Your task to perform on an android device: refresh tabs in the chrome app Image 0: 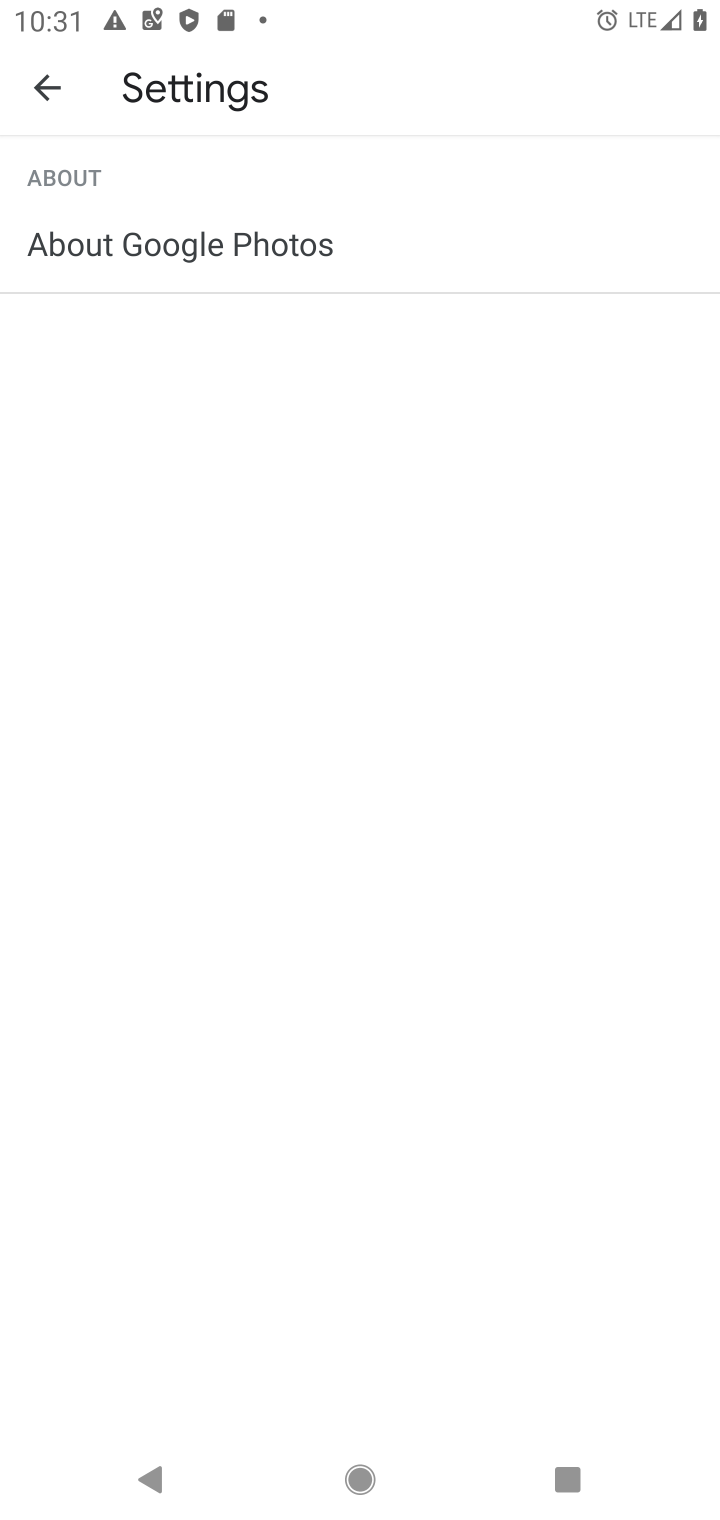
Step 0: press home button
Your task to perform on an android device: refresh tabs in the chrome app Image 1: 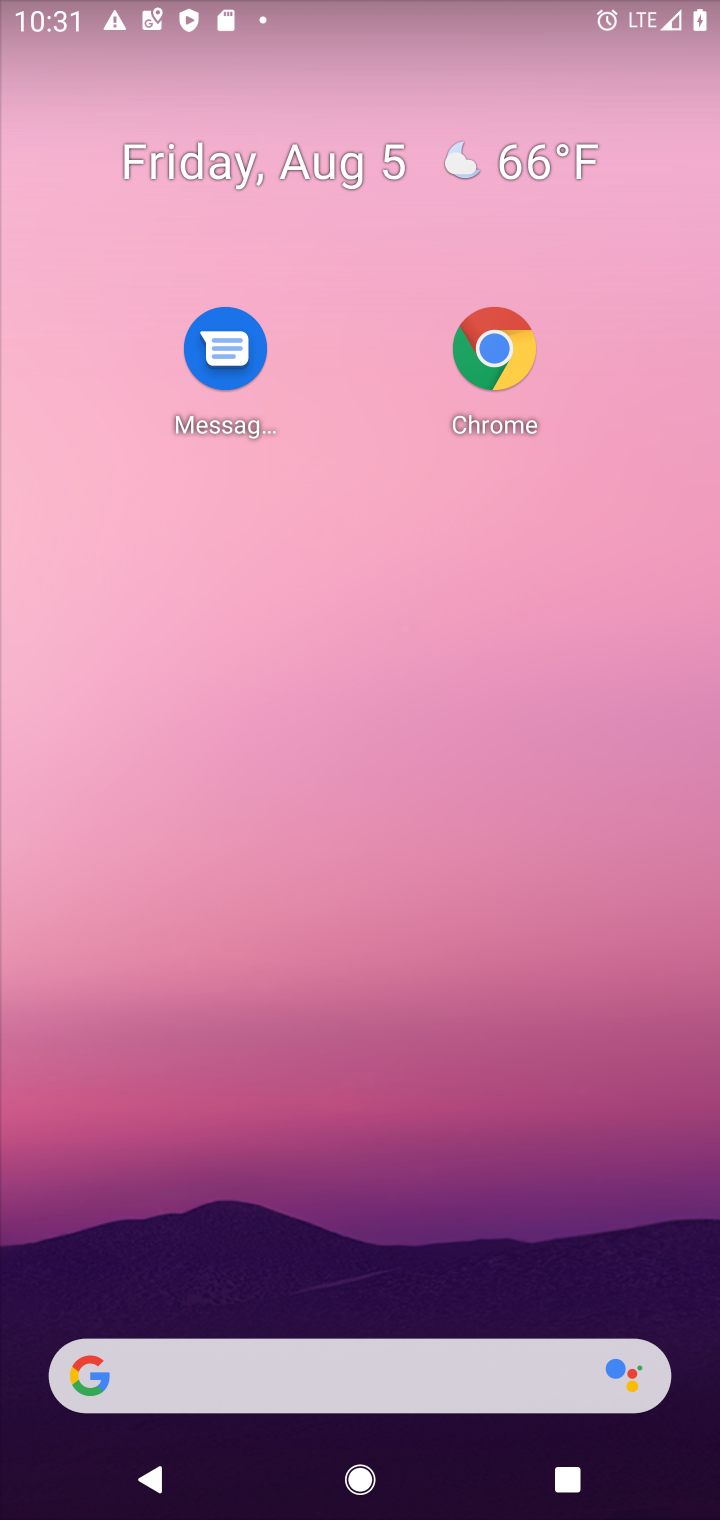
Step 1: drag from (379, 1163) to (259, 442)
Your task to perform on an android device: refresh tabs in the chrome app Image 2: 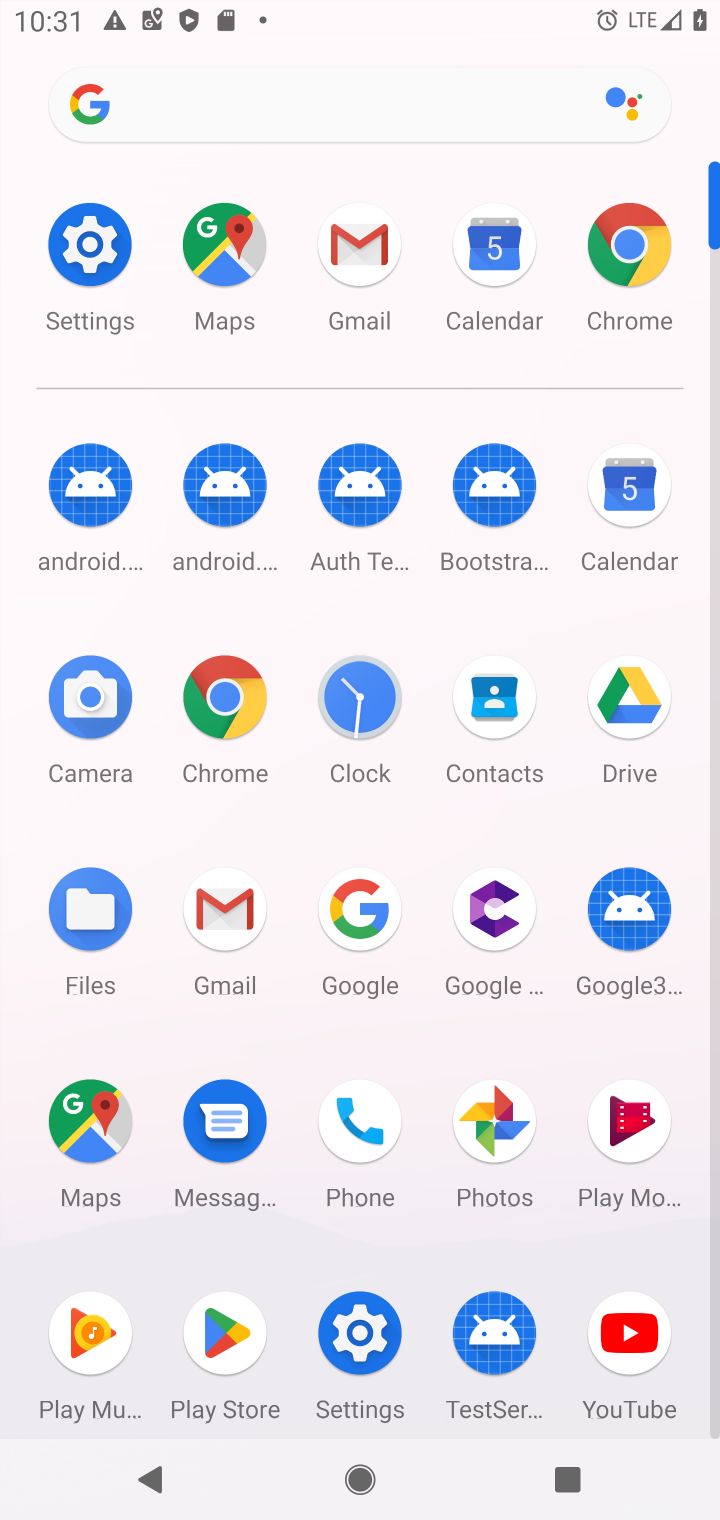
Step 2: click (599, 243)
Your task to perform on an android device: refresh tabs in the chrome app Image 3: 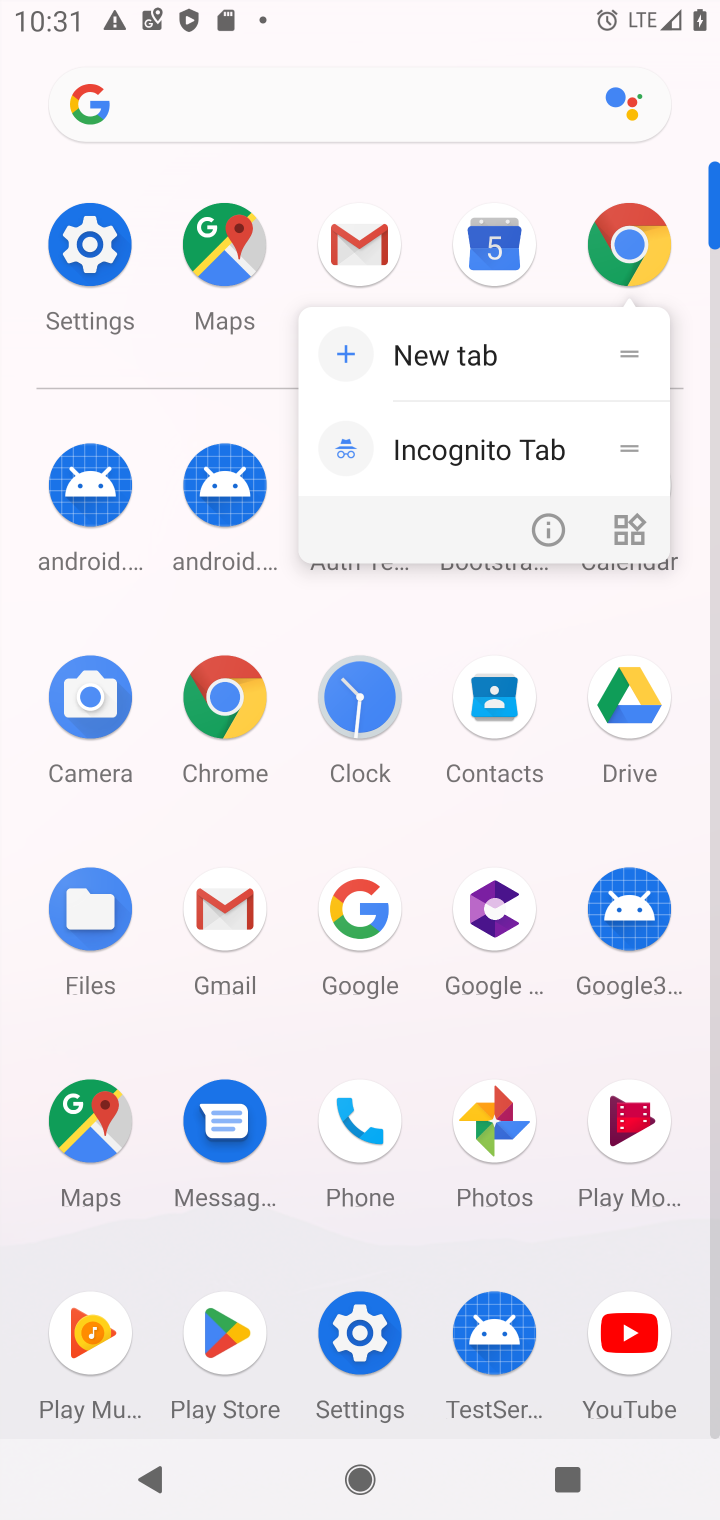
Step 3: click (641, 238)
Your task to perform on an android device: refresh tabs in the chrome app Image 4: 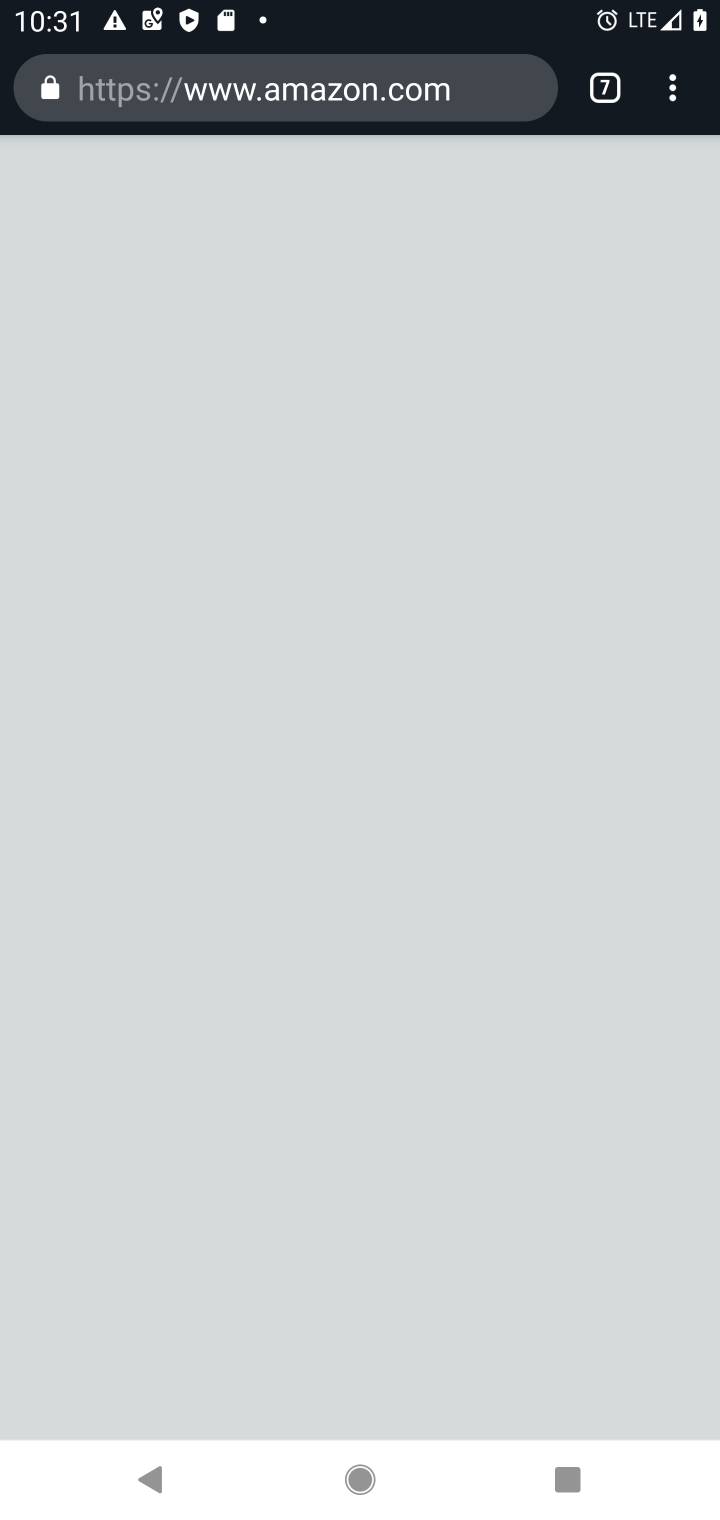
Step 4: click (671, 91)
Your task to perform on an android device: refresh tabs in the chrome app Image 5: 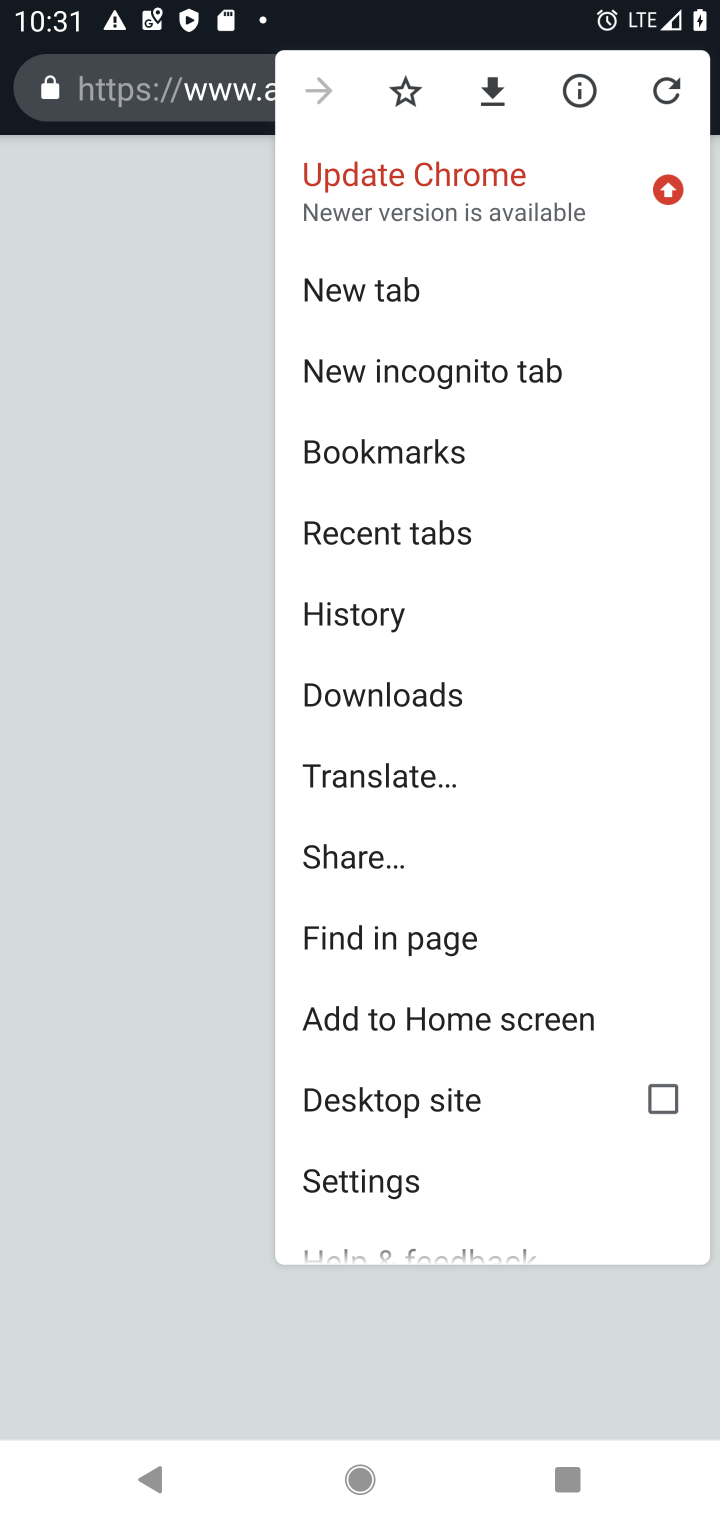
Step 5: click (664, 88)
Your task to perform on an android device: refresh tabs in the chrome app Image 6: 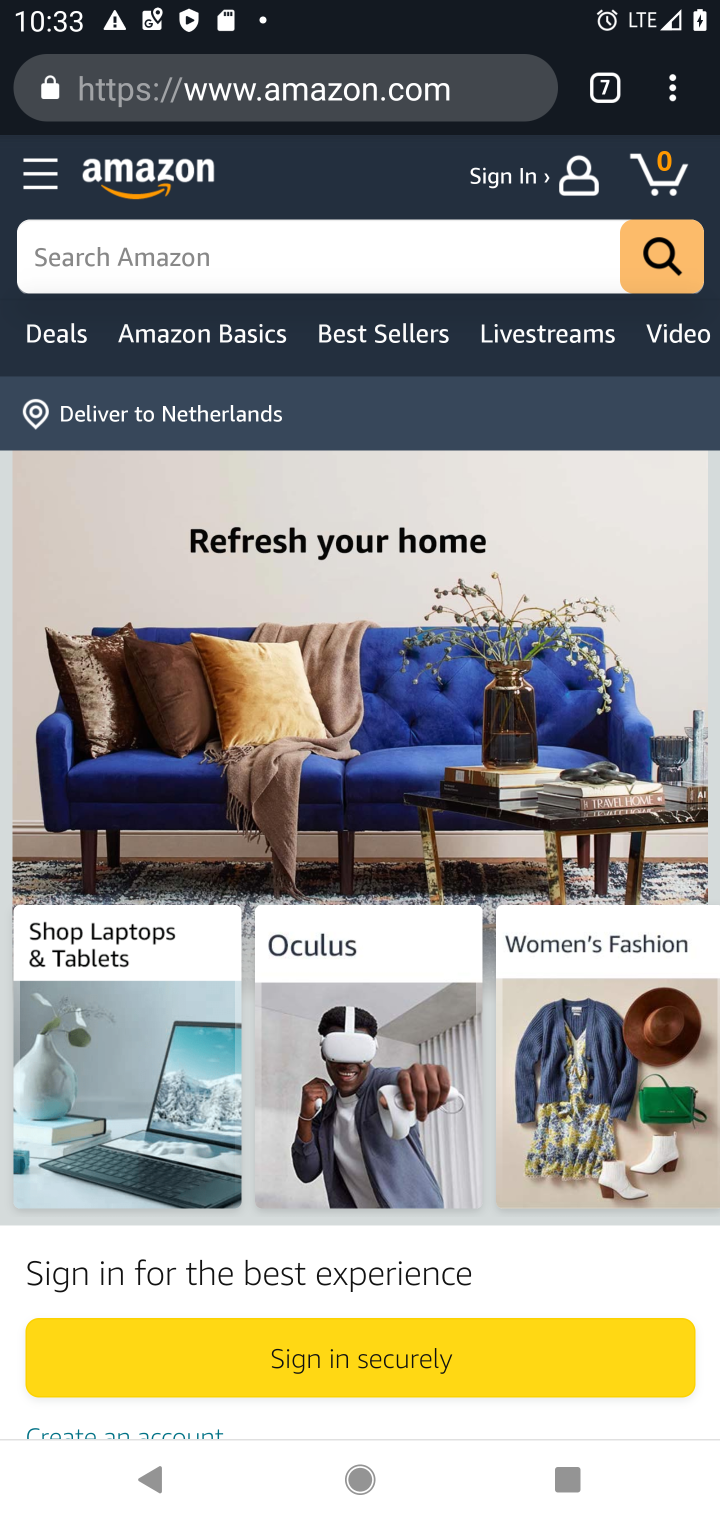
Step 6: task complete